Your task to perform on an android device: install app "McDonald's" Image 0: 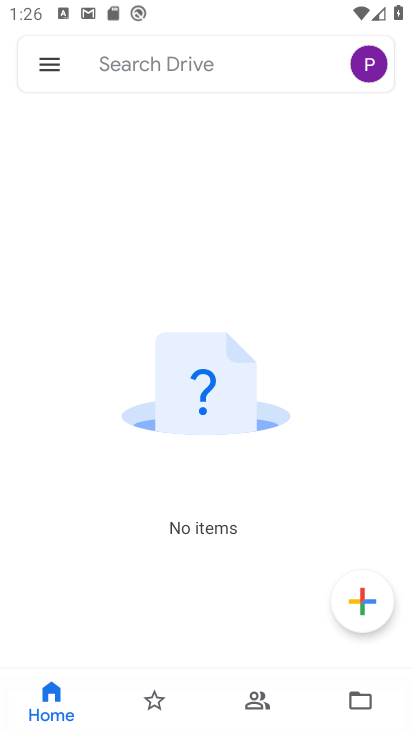
Step 0: press home button
Your task to perform on an android device: install app "McDonald's" Image 1: 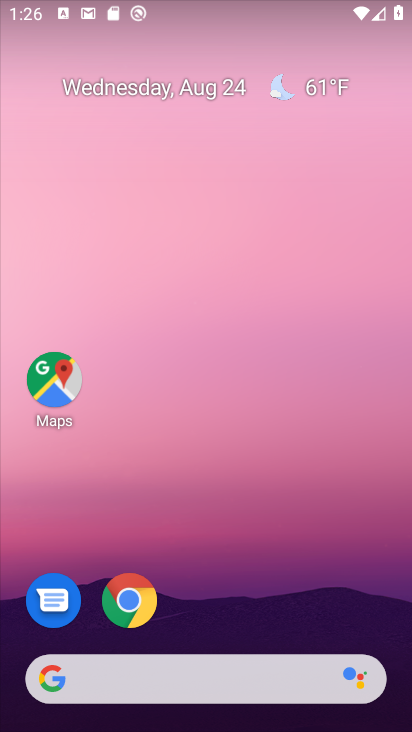
Step 1: drag from (261, 607) to (185, 15)
Your task to perform on an android device: install app "McDonald's" Image 2: 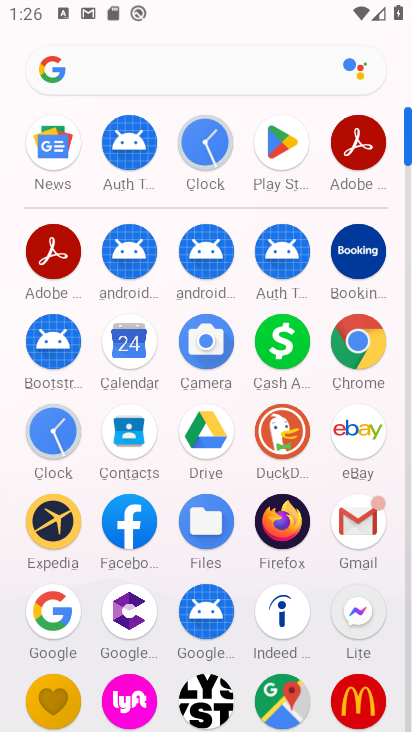
Step 2: click (259, 182)
Your task to perform on an android device: install app "McDonald's" Image 3: 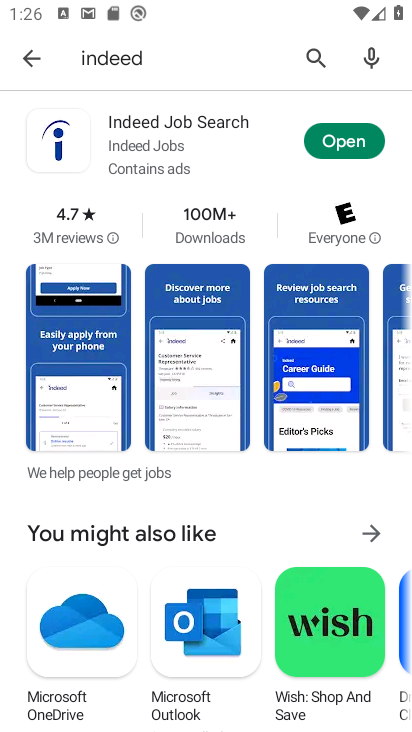
Step 3: click (311, 70)
Your task to perform on an android device: install app "McDonald's" Image 4: 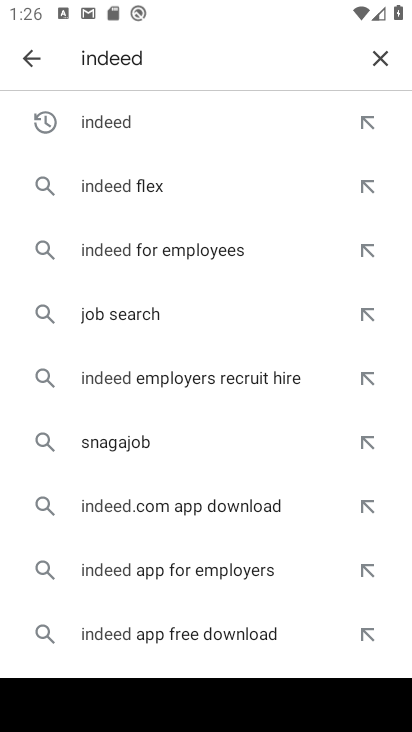
Step 4: click (376, 68)
Your task to perform on an android device: install app "McDonald's" Image 5: 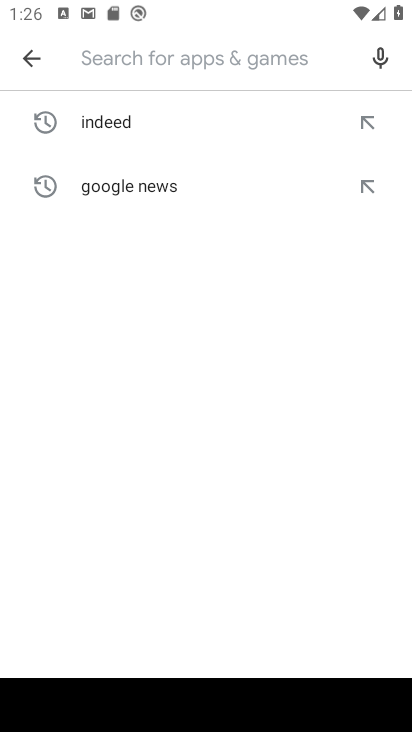
Step 5: type "mcdland"
Your task to perform on an android device: install app "McDonald's" Image 6: 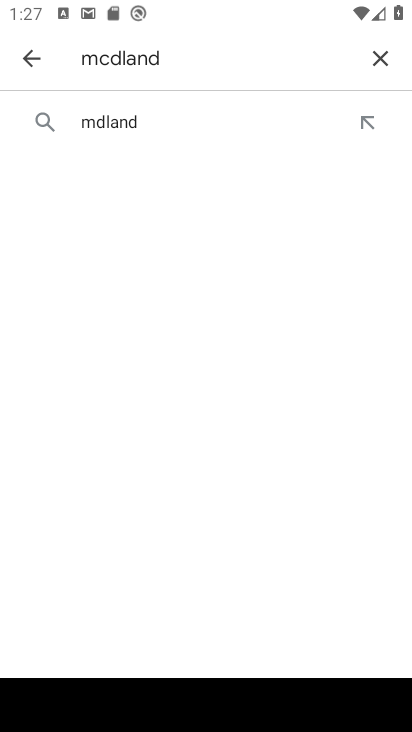
Step 6: click (163, 137)
Your task to perform on an android device: install app "McDonald's" Image 7: 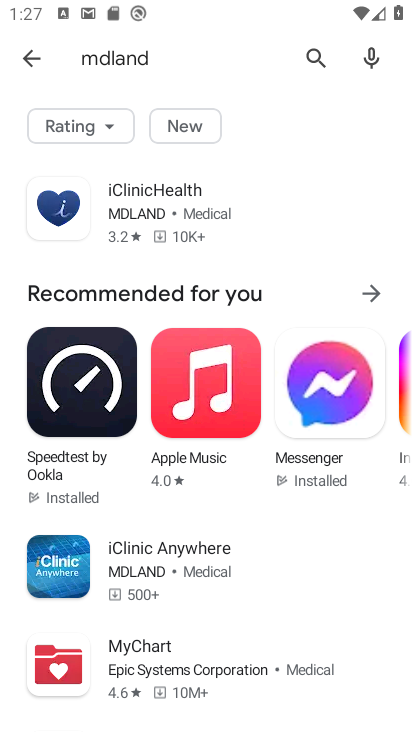
Step 7: task complete